Your task to perform on an android device: change the upload size in google photos Image 0: 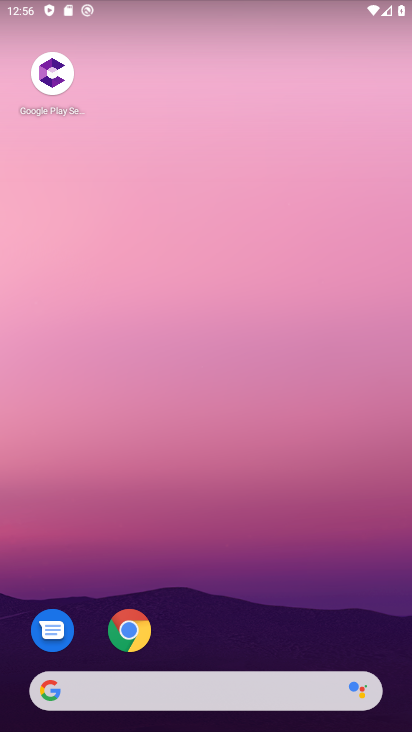
Step 0: drag from (238, 655) to (347, 135)
Your task to perform on an android device: change the upload size in google photos Image 1: 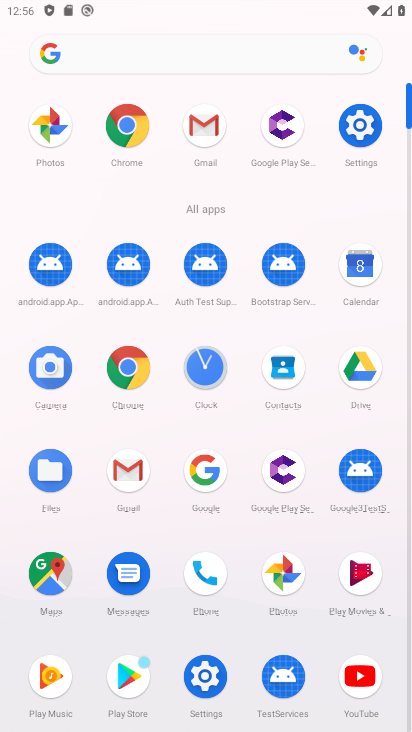
Step 1: click (288, 588)
Your task to perform on an android device: change the upload size in google photos Image 2: 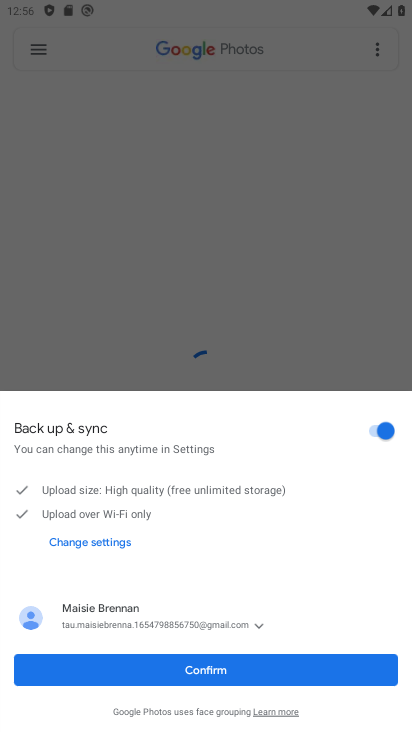
Step 2: drag from (49, 56) to (406, 665)
Your task to perform on an android device: change the upload size in google photos Image 3: 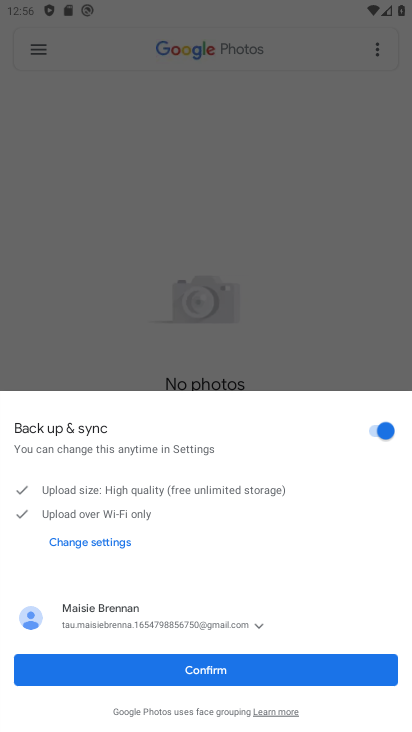
Step 3: click (228, 665)
Your task to perform on an android device: change the upload size in google photos Image 4: 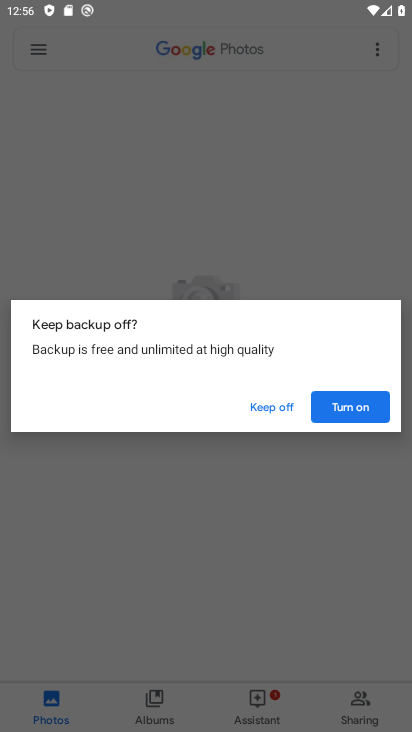
Step 4: click (349, 415)
Your task to perform on an android device: change the upload size in google photos Image 5: 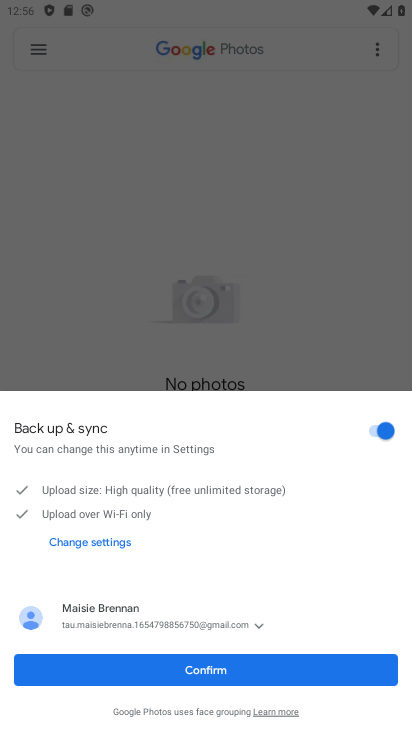
Step 5: click (195, 666)
Your task to perform on an android device: change the upload size in google photos Image 6: 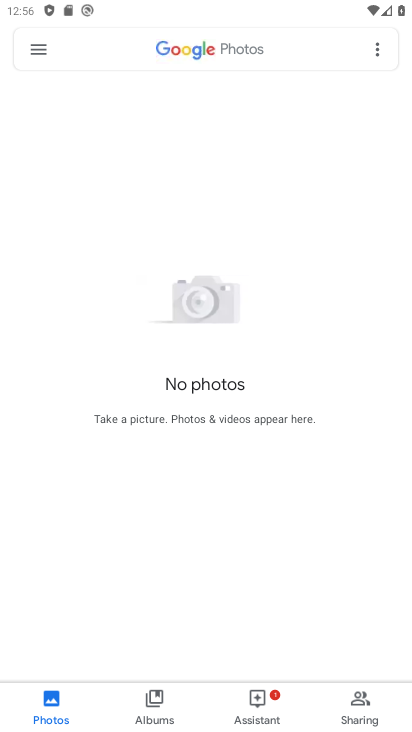
Step 6: click (41, 48)
Your task to perform on an android device: change the upload size in google photos Image 7: 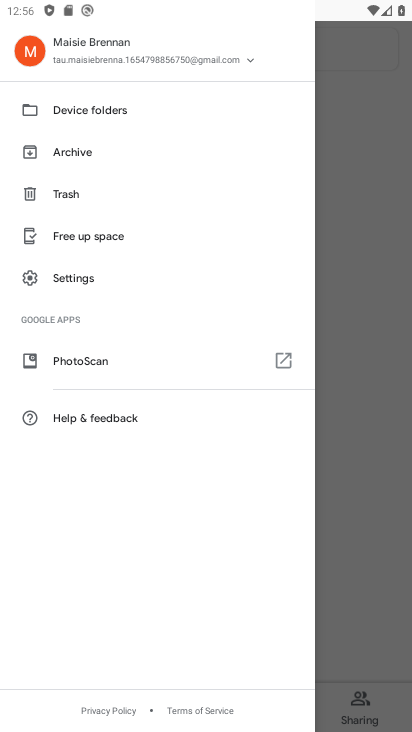
Step 7: click (101, 287)
Your task to perform on an android device: change the upload size in google photos Image 8: 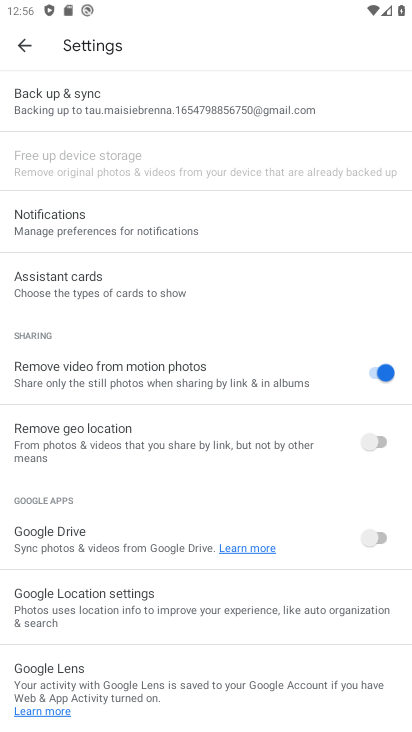
Step 8: click (172, 101)
Your task to perform on an android device: change the upload size in google photos Image 9: 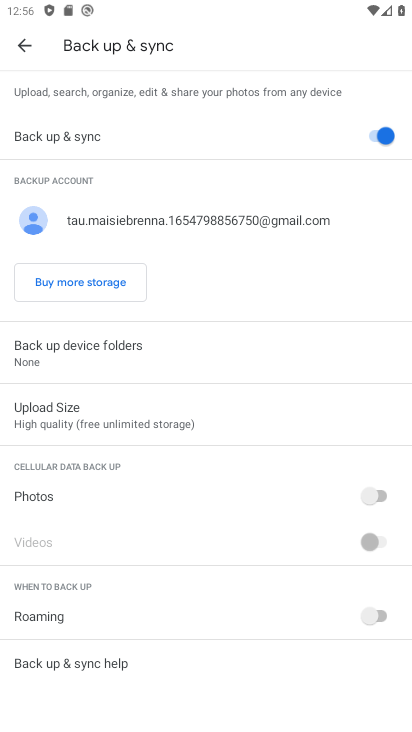
Step 9: drag from (175, 515) to (256, 236)
Your task to perform on an android device: change the upload size in google photos Image 10: 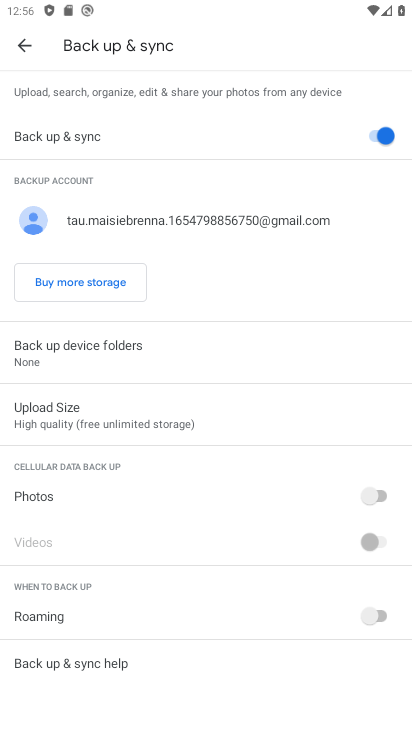
Step 10: click (225, 420)
Your task to perform on an android device: change the upload size in google photos Image 11: 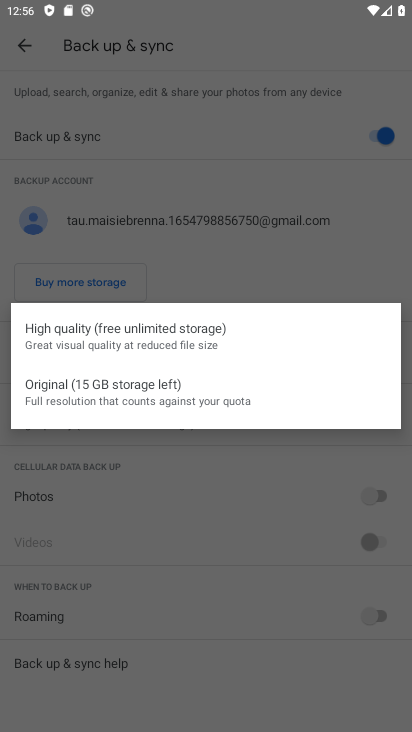
Step 11: click (173, 402)
Your task to perform on an android device: change the upload size in google photos Image 12: 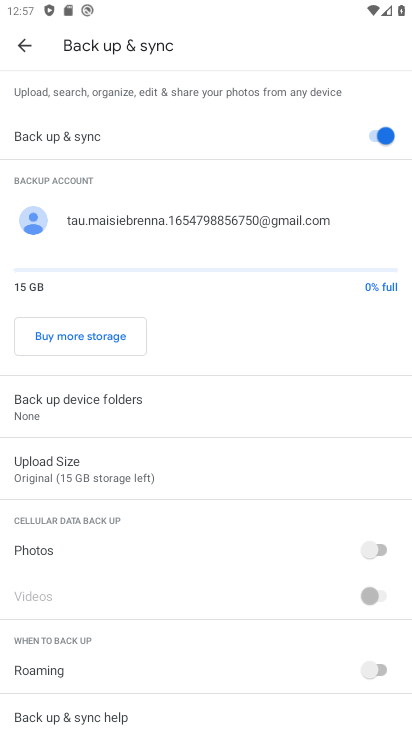
Step 12: task complete